Your task to perform on an android device: Search for Mexican restaurants on Maps Image 0: 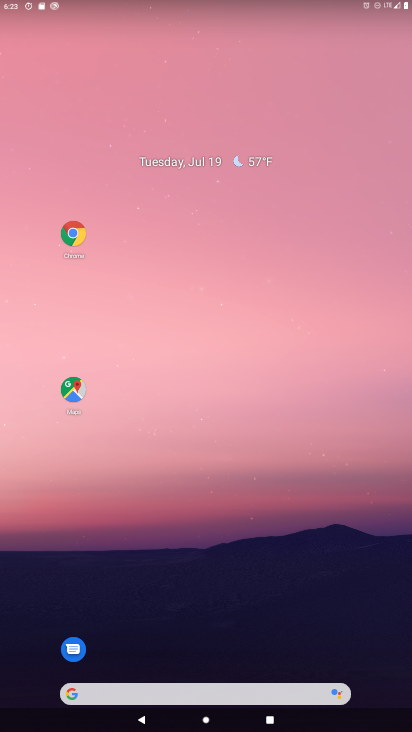
Step 0: click (80, 391)
Your task to perform on an android device: Search for Mexican restaurants on Maps Image 1: 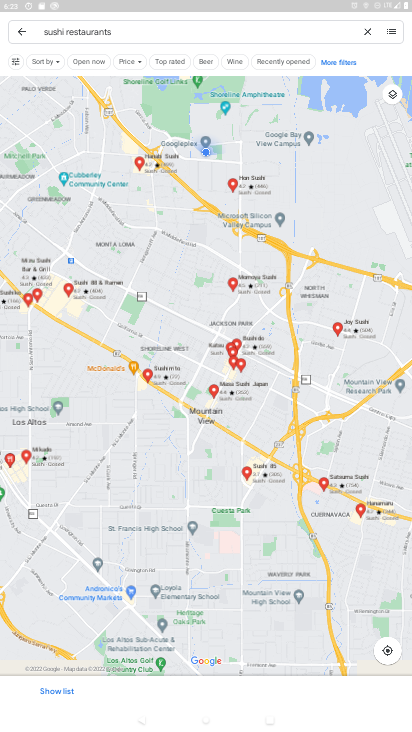
Step 1: click (24, 28)
Your task to perform on an android device: Search for Mexican restaurants on Maps Image 2: 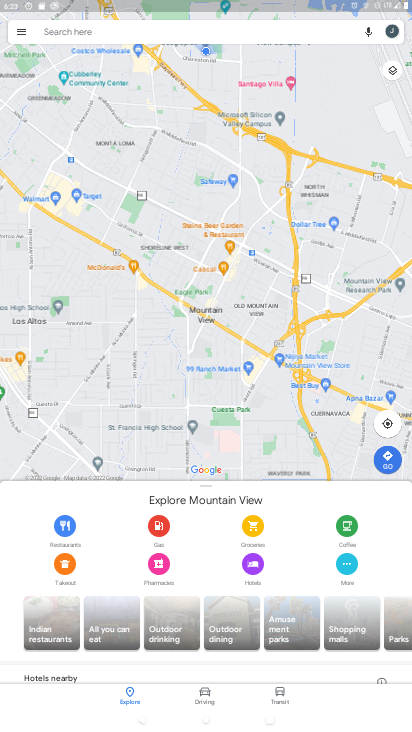
Step 2: click (129, 26)
Your task to perform on an android device: Search for Mexican restaurants on Maps Image 3: 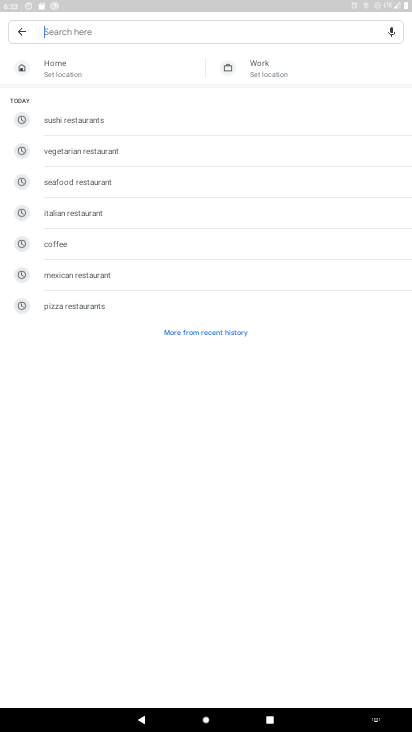
Step 3: click (83, 273)
Your task to perform on an android device: Search for Mexican restaurants on Maps Image 4: 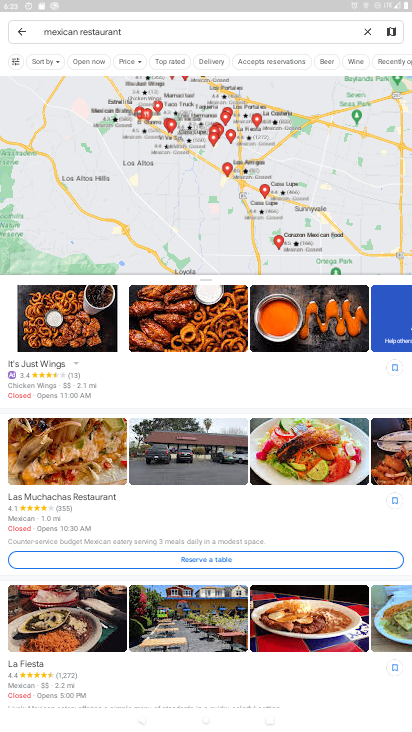
Step 4: task complete